Your task to perform on an android device: Show me recent news Image 0: 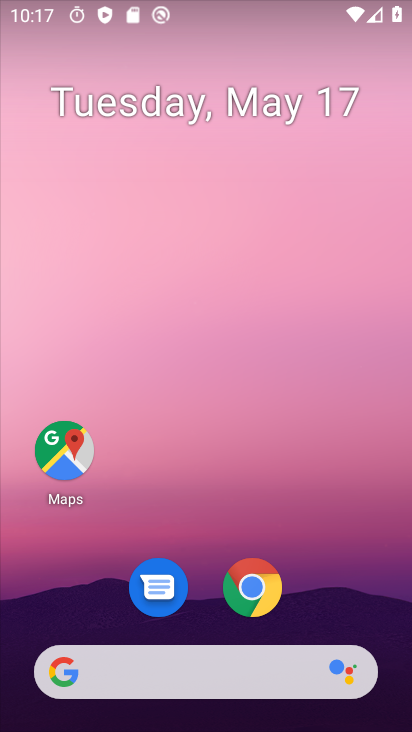
Step 0: drag from (346, 532) to (290, 171)
Your task to perform on an android device: Show me recent news Image 1: 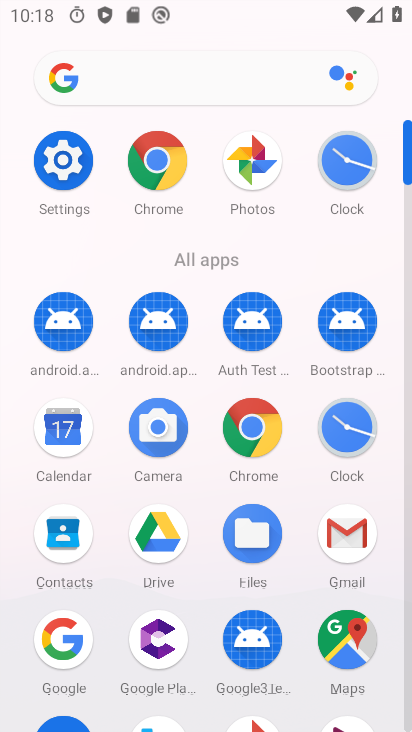
Step 1: click (152, 180)
Your task to perform on an android device: Show me recent news Image 2: 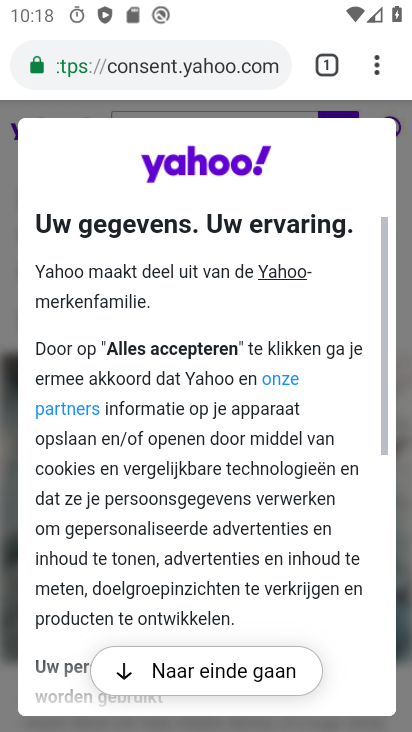
Step 2: click (186, 72)
Your task to perform on an android device: Show me recent news Image 3: 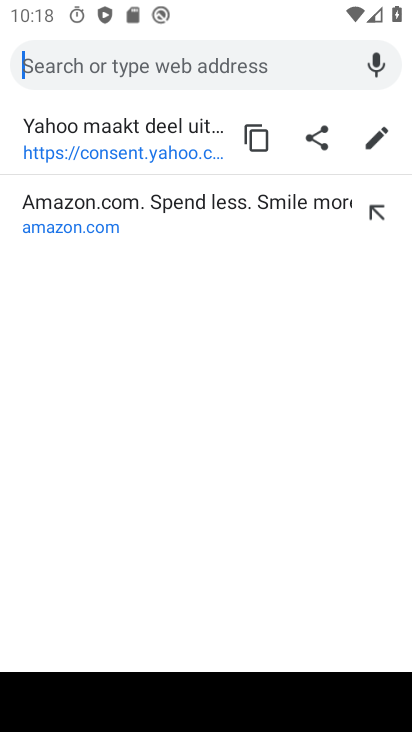
Step 3: type "recent news"
Your task to perform on an android device: Show me recent news Image 4: 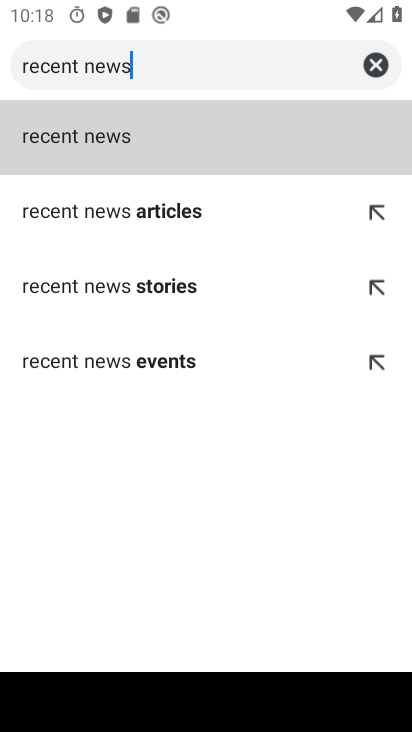
Step 4: click (189, 141)
Your task to perform on an android device: Show me recent news Image 5: 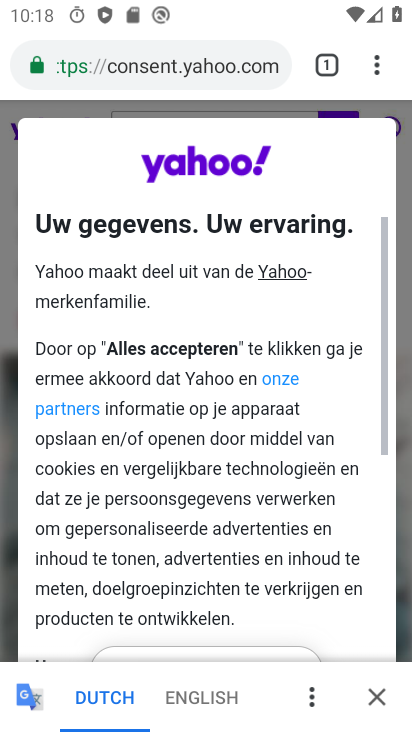
Step 5: task complete